Your task to perform on an android device: make emails show in primary in the gmail app Image 0: 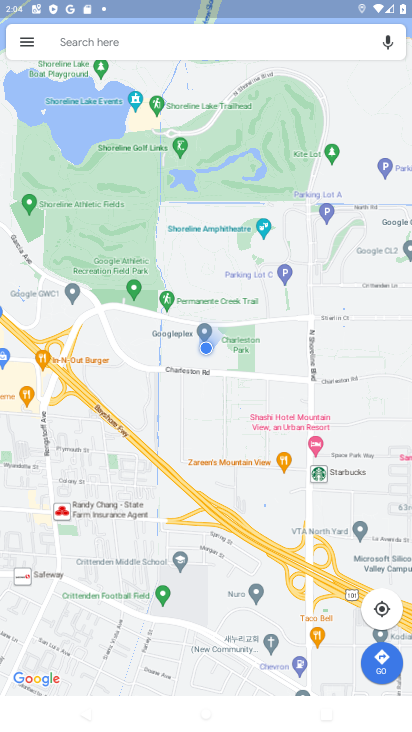
Step 0: press home button
Your task to perform on an android device: make emails show in primary in the gmail app Image 1: 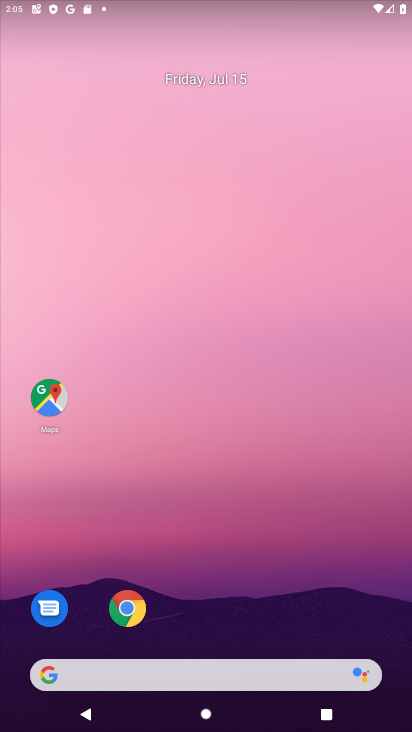
Step 1: drag from (139, 649) to (56, 36)
Your task to perform on an android device: make emails show in primary in the gmail app Image 2: 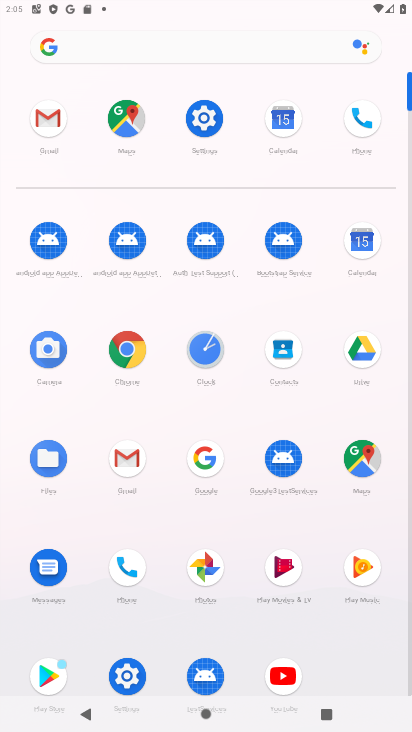
Step 2: click (133, 458)
Your task to perform on an android device: make emails show in primary in the gmail app Image 3: 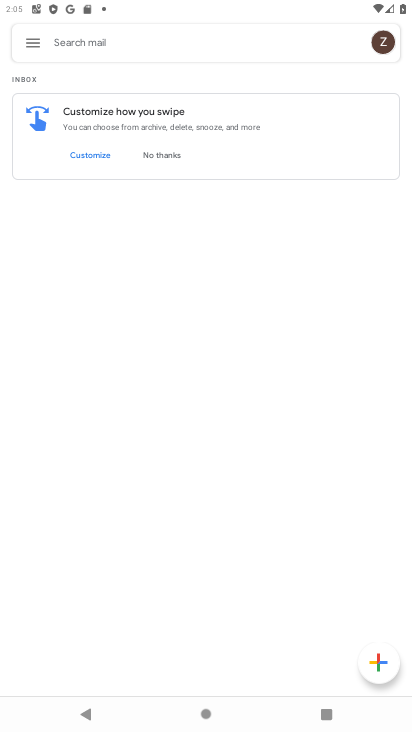
Step 3: click (26, 46)
Your task to perform on an android device: make emails show in primary in the gmail app Image 4: 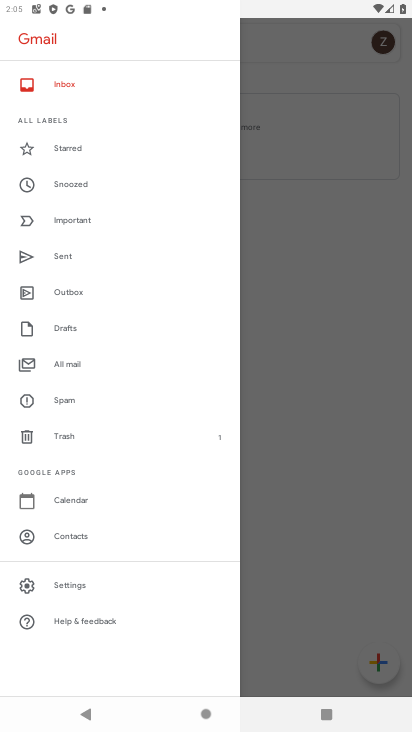
Step 4: click (109, 585)
Your task to perform on an android device: make emails show in primary in the gmail app Image 5: 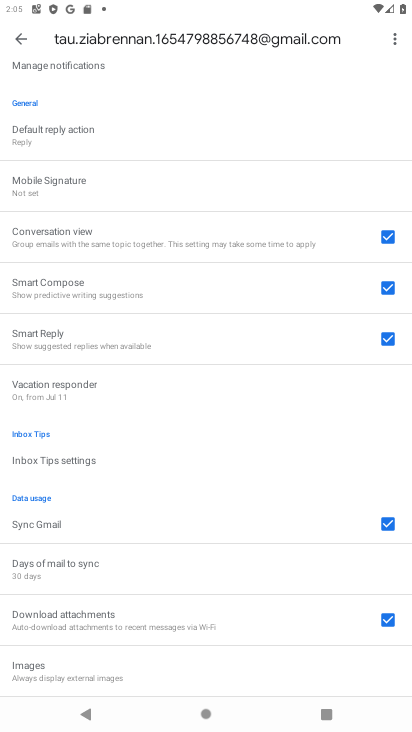
Step 5: task complete